Your task to perform on an android device: Open calendar and show me the third week of next month Image 0: 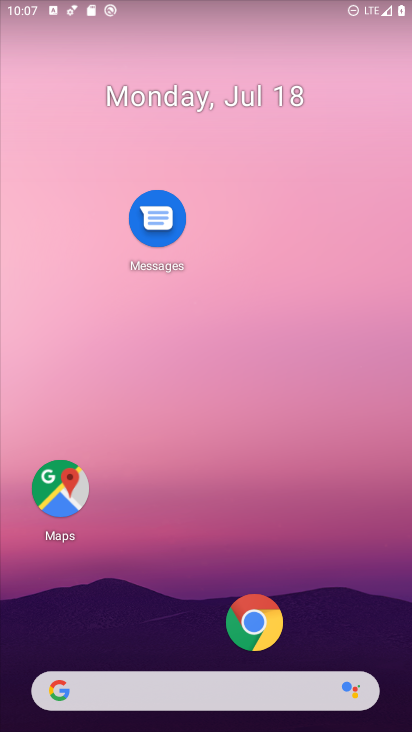
Step 0: drag from (180, 699) to (185, 172)
Your task to perform on an android device: Open calendar and show me the third week of next month Image 1: 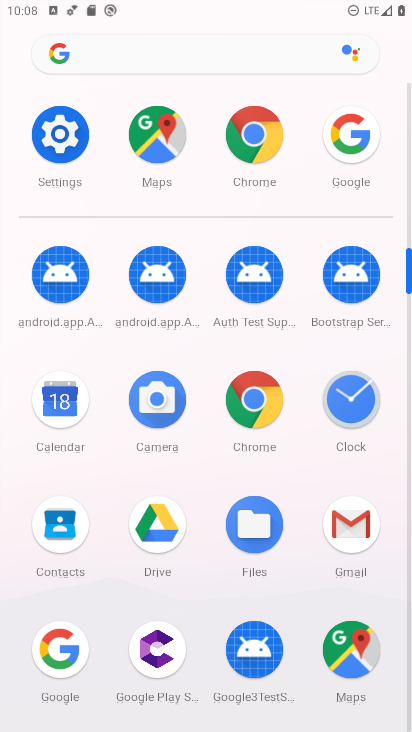
Step 1: click (57, 425)
Your task to perform on an android device: Open calendar and show me the third week of next month Image 2: 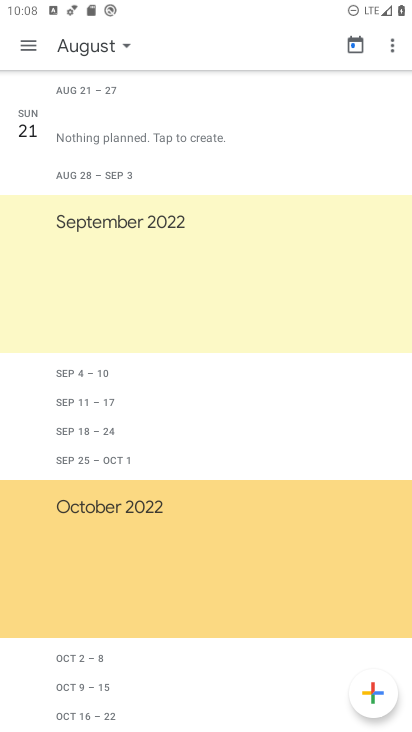
Step 2: click (99, 51)
Your task to perform on an android device: Open calendar and show me the third week of next month Image 3: 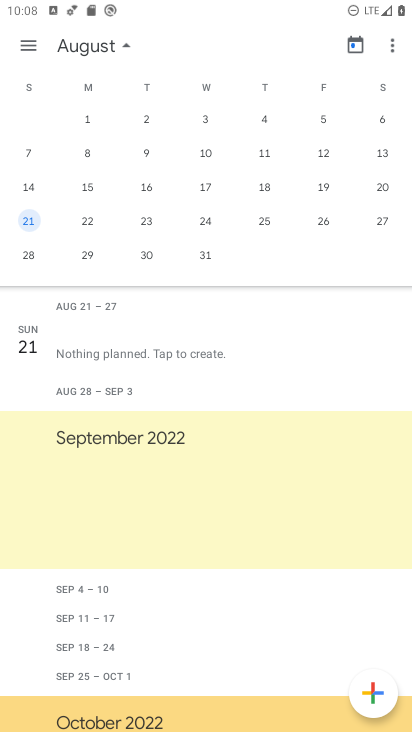
Step 3: task complete